Your task to perform on an android device: Go to internet settings Image 0: 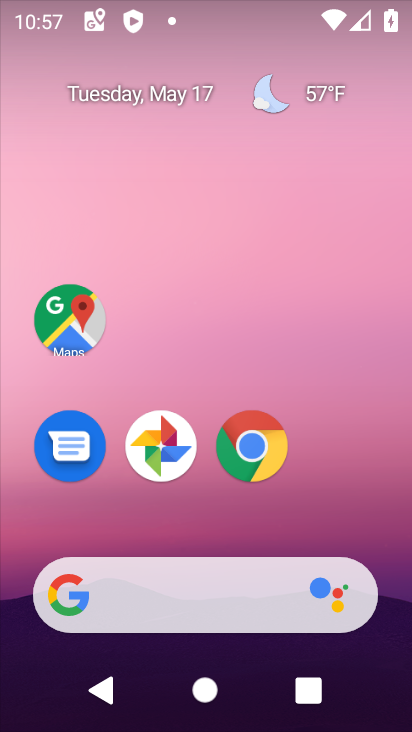
Step 0: drag from (177, 567) to (150, 92)
Your task to perform on an android device: Go to internet settings Image 1: 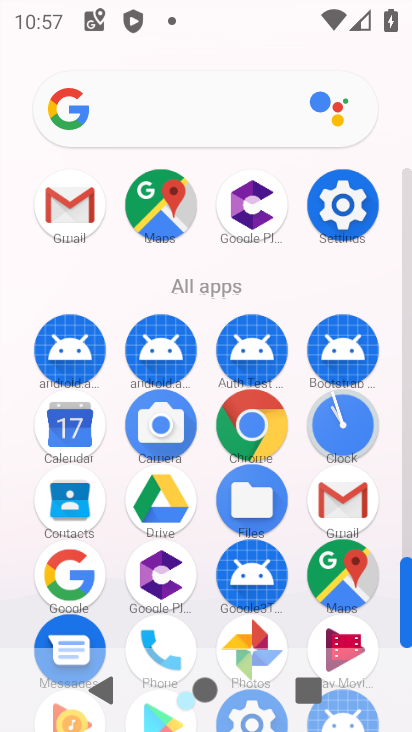
Step 1: click (346, 207)
Your task to perform on an android device: Go to internet settings Image 2: 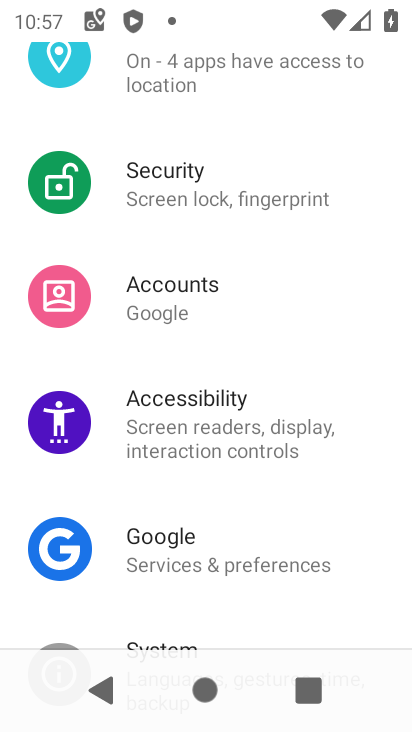
Step 2: drag from (176, 157) to (223, 518)
Your task to perform on an android device: Go to internet settings Image 3: 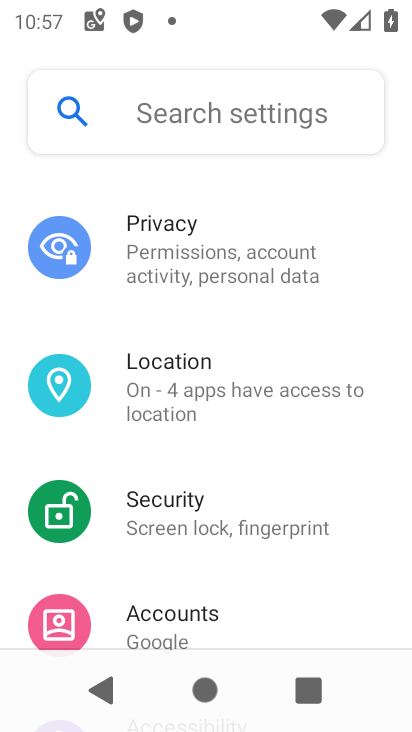
Step 3: drag from (185, 190) to (223, 648)
Your task to perform on an android device: Go to internet settings Image 4: 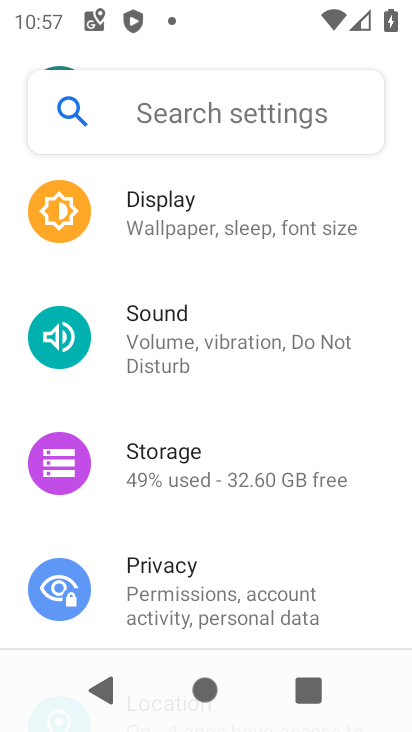
Step 4: drag from (209, 291) to (217, 684)
Your task to perform on an android device: Go to internet settings Image 5: 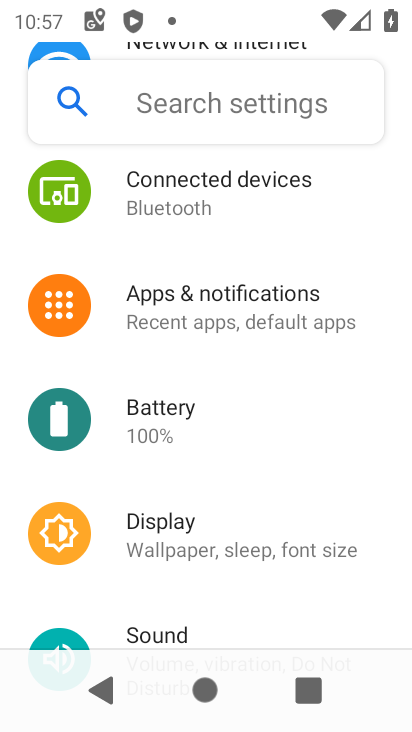
Step 5: drag from (248, 176) to (286, 653)
Your task to perform on an android device: Go to internet settings Image 6: 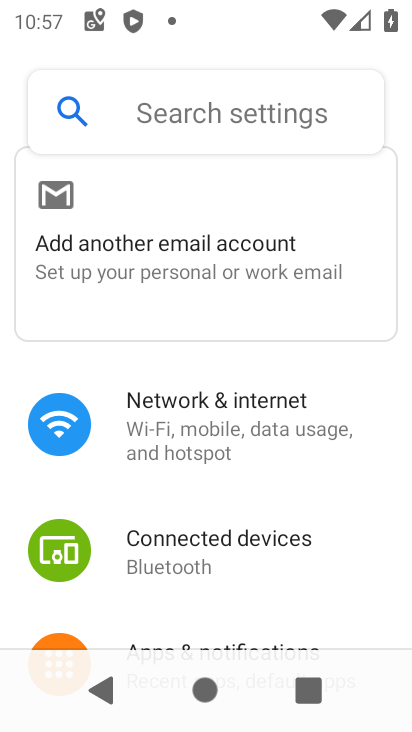
Step 6: click (182, 410)
Your task to perform on an android device: Go to internet settings Image 7: 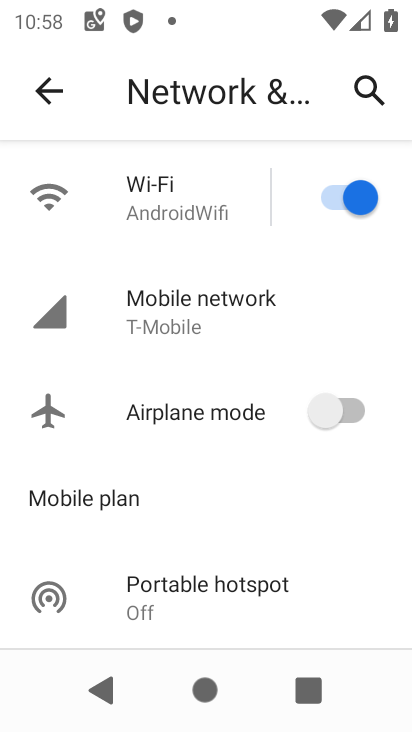
Step 7: task complete